Your task to perform on an android device: turn off improve location accuracy Image 0: 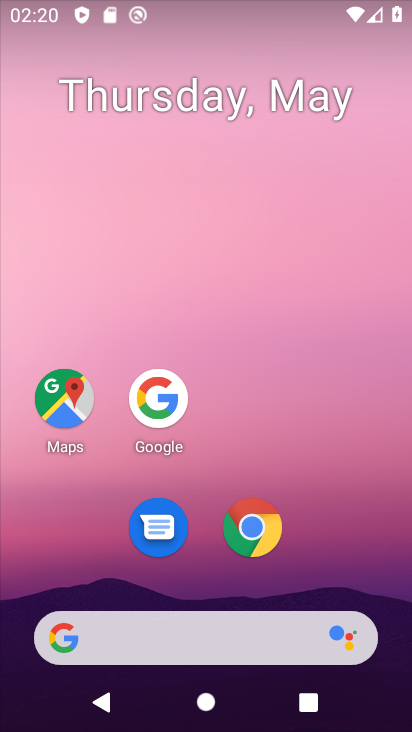
Step 0: drag from (211, 571) to (268, 178)
Your task to perform on an android device: turn off improve location accuracy Image 1: 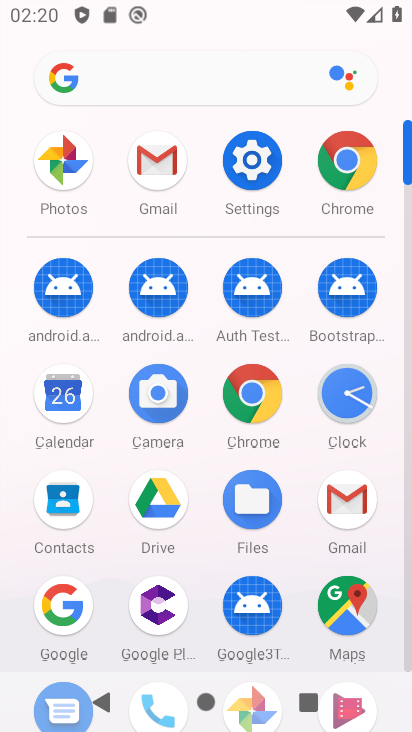
Step 1: click (235, 165)
Your task to perform on an android device: turn off improve location accuracy Image 2: 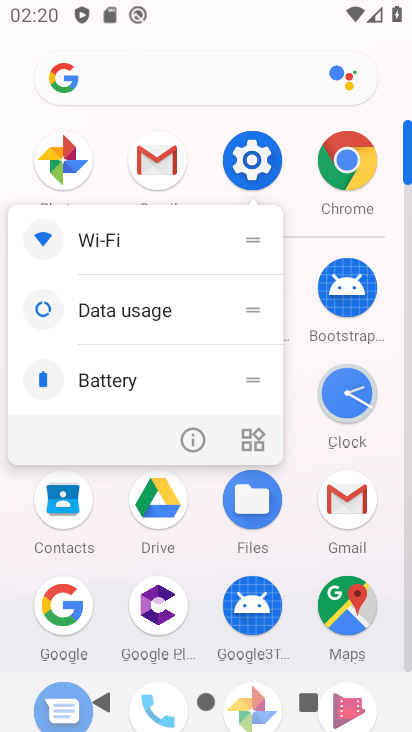
Step 2: click (194, 435)
Your task to perform on an android device: turn off improve location accuracy Image 3: 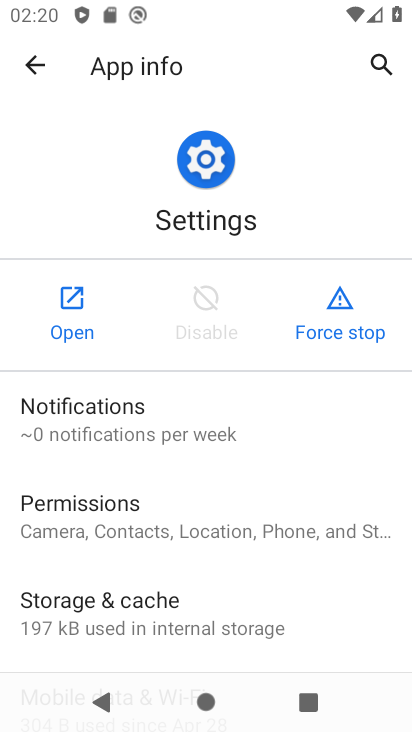
Step 3: click (77, 313)
Your task to perform on an android device: turn off improve location accuracy Image 4: 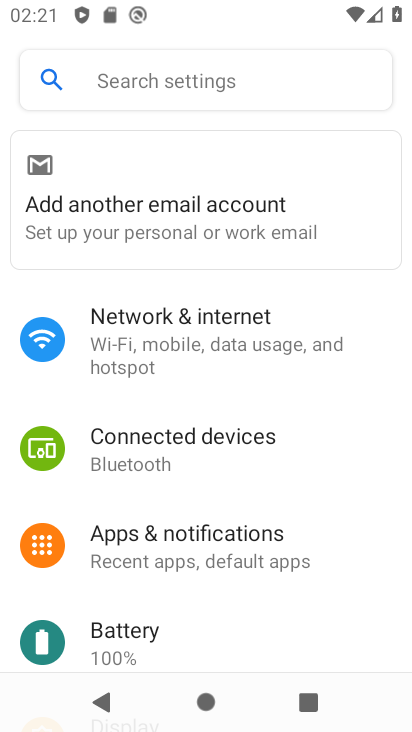
Step 4: drag from (149, 591) to (251, 319)
Your task to perform on an android device: turn off improve location accuracy Image 5: 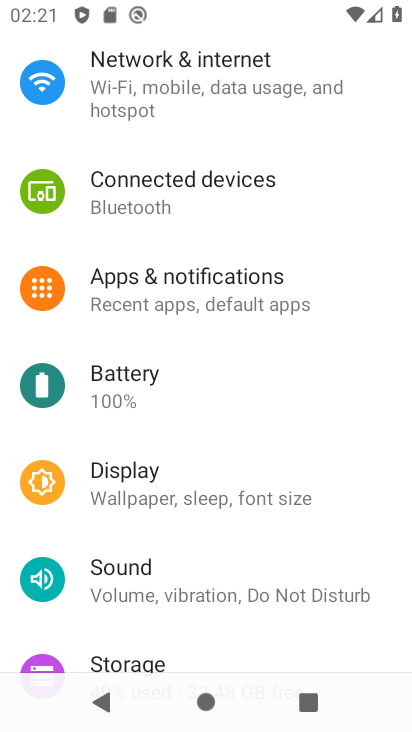
Step 5: click (224, 281)
Your task to perform on an android device: turn off improve location accuracy Image 6: 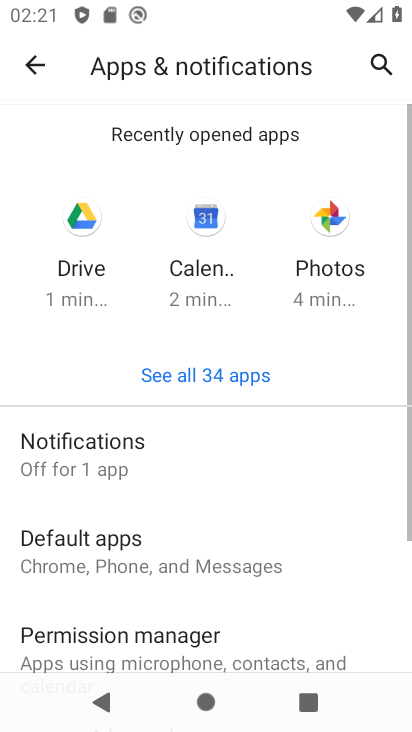
Step 6: drag from (242, 479) to (285, 242)
Your task to perform on an android device: turn off improve location accuracy Image 7: 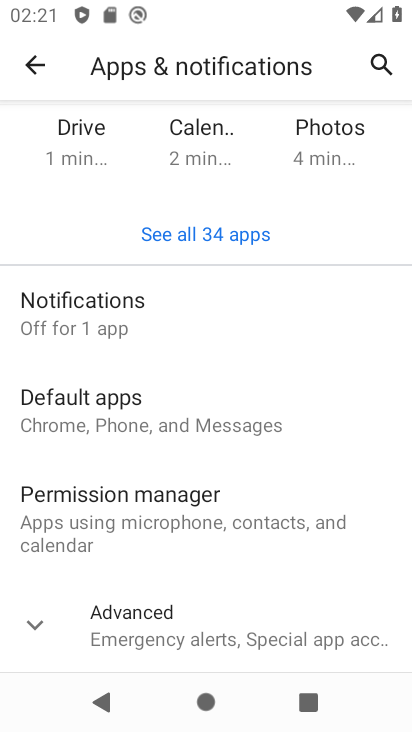
Step 7: click (151, 604)
Your task to perform on an android device: turn off improve location accuracy Image 8: 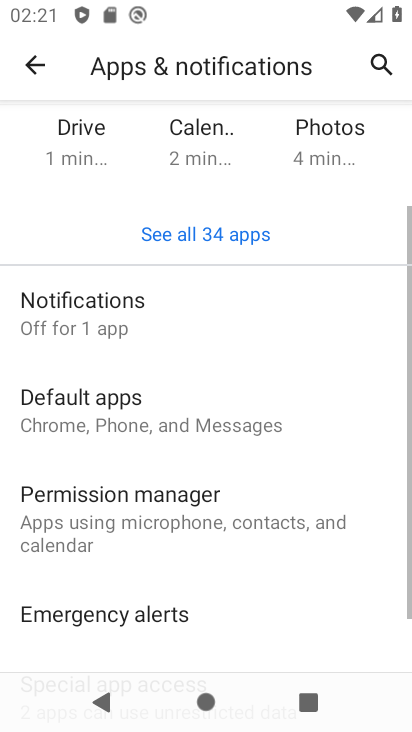
Step 8: drag from (158, 558) to (223, 238)
Your task to perform on an android device: turn off improve location accuracy Image 9: 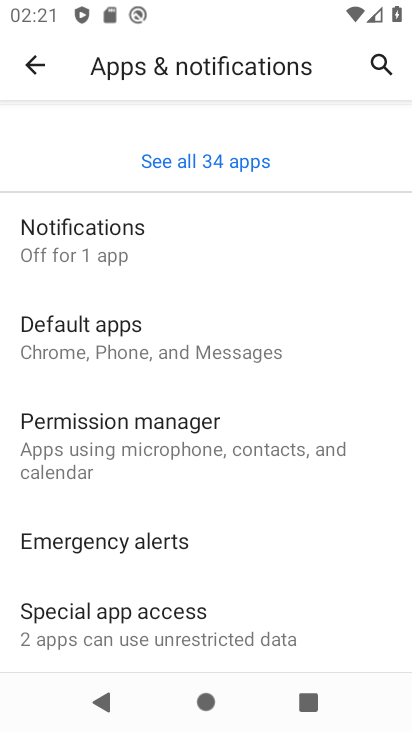
Step 9: click (36, 58)
Your task to perform on an android device: turn off improve location accuracy Image 10: 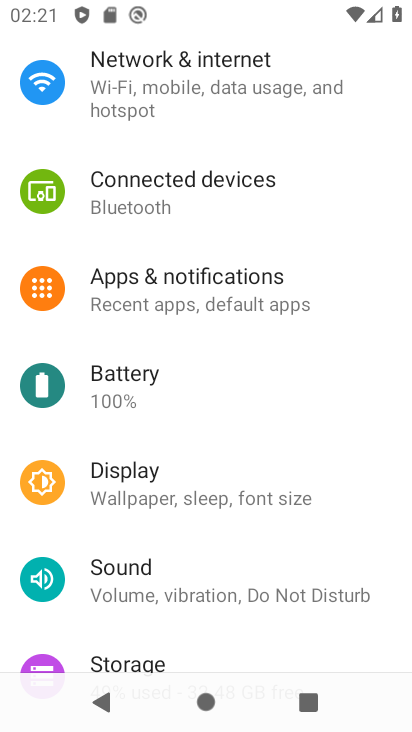
Step 10: drag from (187, 525) to (248, 93)
Your task to perform on an android device: turn off improve location accuracy Image 11: 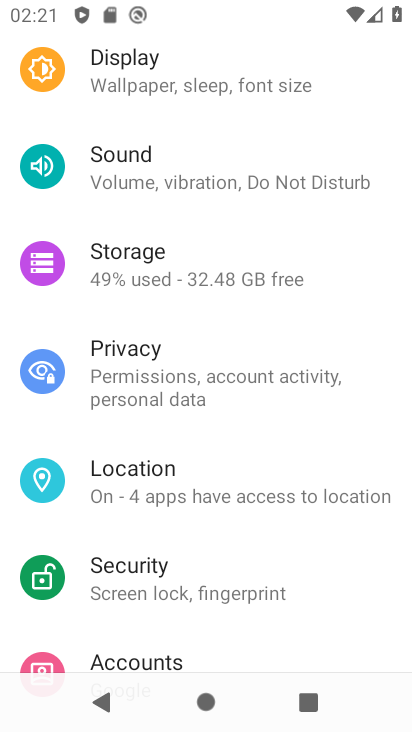
Step 11: click (186, 487)
Your task to perform on an android device: turn off improve location accuracy Image 12: 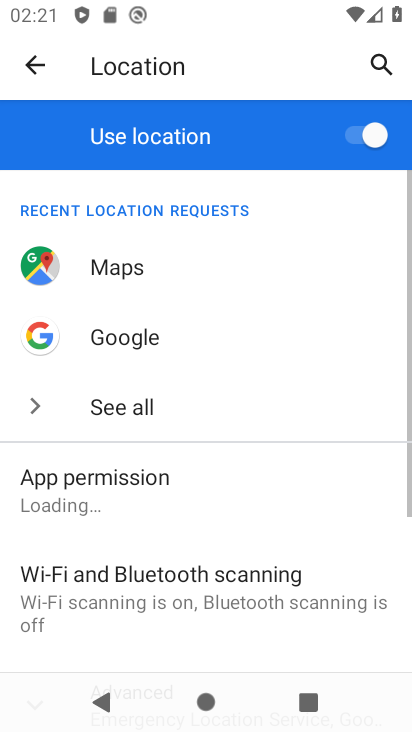
Step 12: drag from (171, 520) to (227, 124)
Your task to perform on an android device: turn off improve location accuracy Image 13: 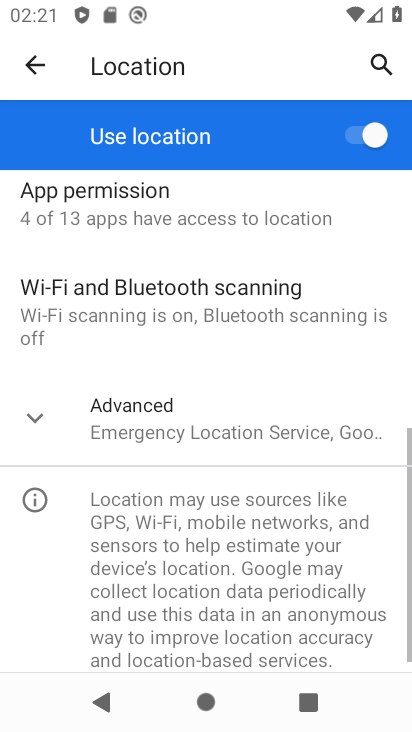
Step 13: click (152, 420)
Your task to perform on an android device: turn off improve location accuracy Image 14: 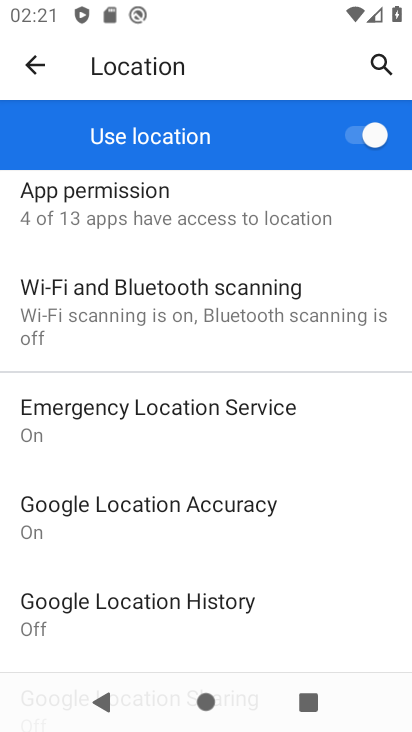
Step 14: click (191, 555)
Your task to perform on an android device: turn off improve location accuracy Image 15: 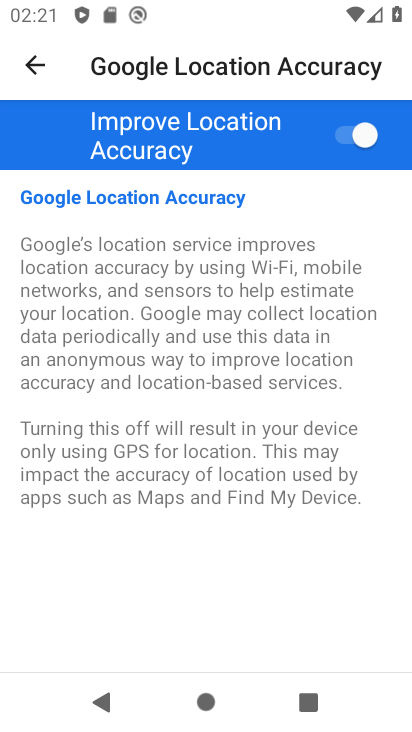
Step 15: click (331, 135)
Your task to perform on an android device: turn off improve location accuracy Image 16: 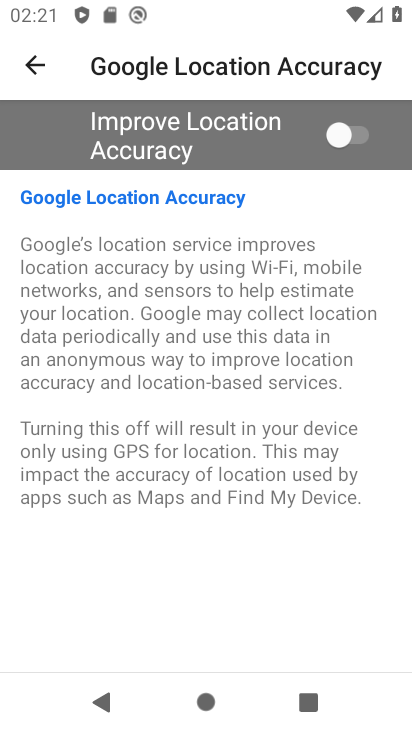
Step 16: task complete